Your task to perform on an android device: What's on my calendar tomorrow? Image 0: 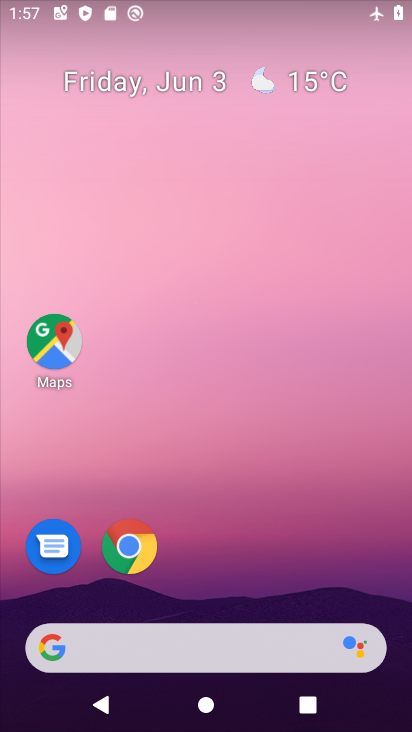
Step 0: drag from (336, 435) to (338, 40)
Your task to perform on an android device: What's on my calendar tomorrow? Image 1: 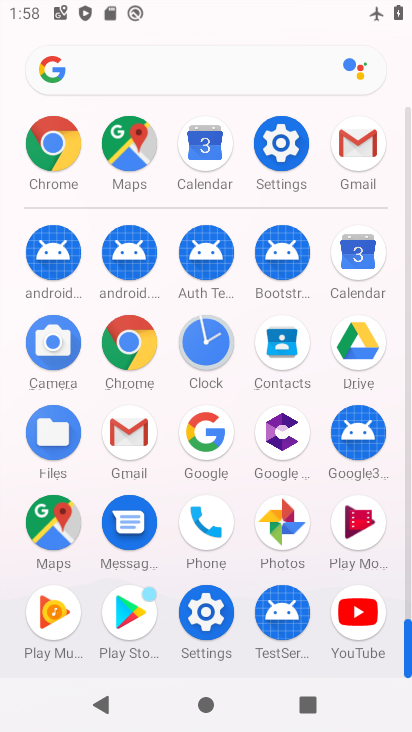
Step 1: click (354, 269)
Your task to perform on an android device: What's on my calendar tomorrow? Image 2: 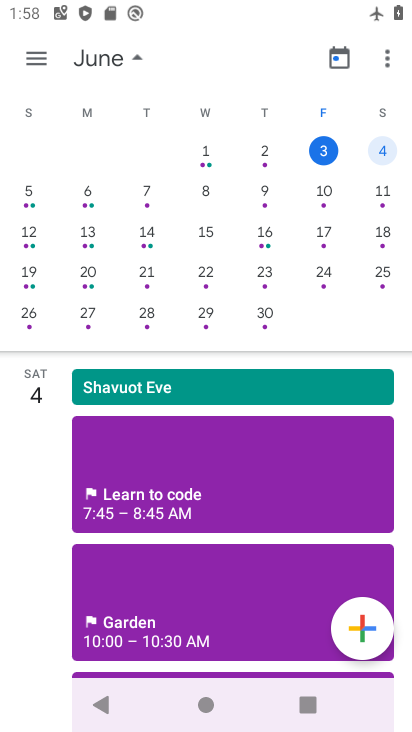
Step 2: click (374, 154)
Your task to perform on an android device: What's on my calendar tomorrow? Image 3: 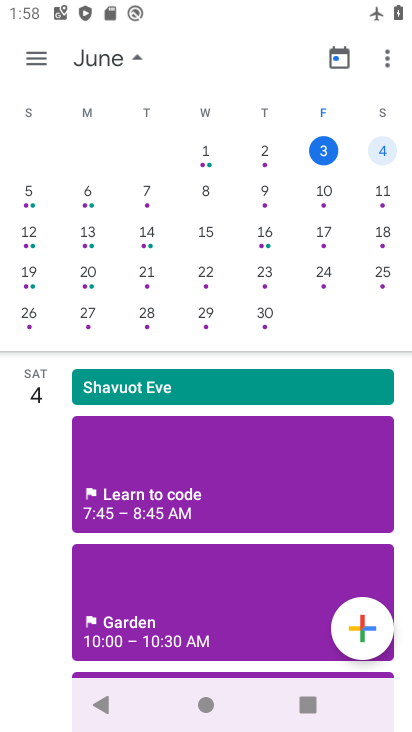
Step 3: task complete